Your task to perform on an android device: turn on sleep mode Image 0: 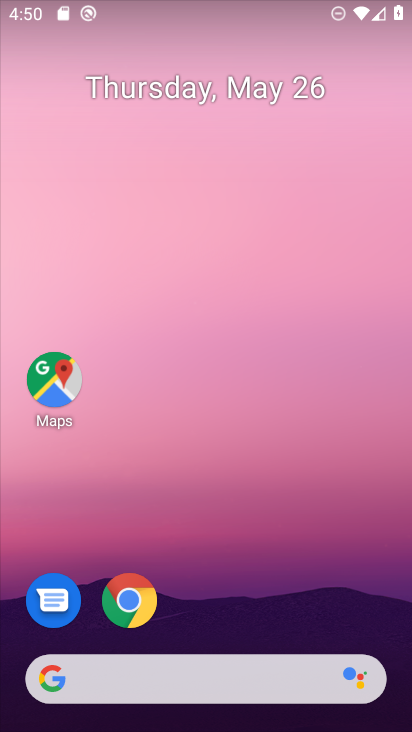
Step 0: drag from (200, 619) to (246, 9)
Your task to perform on an android device: turn on sleep mode Image 1: 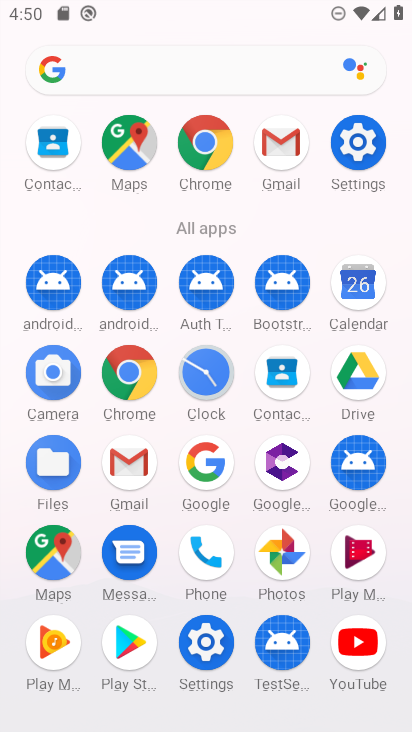
Step 1: click (359, 155)
Your task to perform on an android device: turn on sleep mode Image 2: 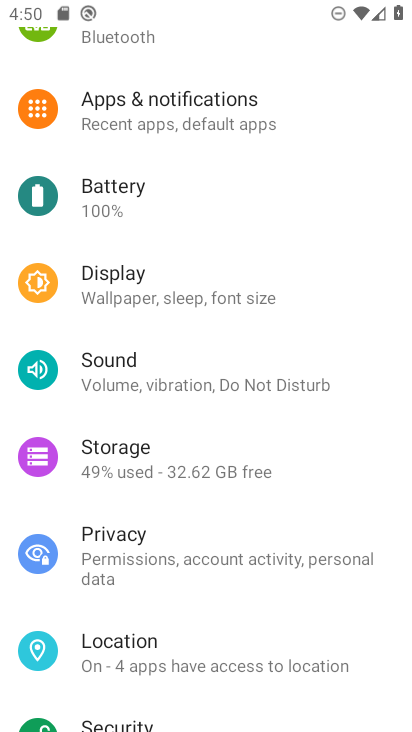
Step 2: drag from (270, 195) to (260, 615)
Your task to perform on an android device: turn on sleep mode Image 3: 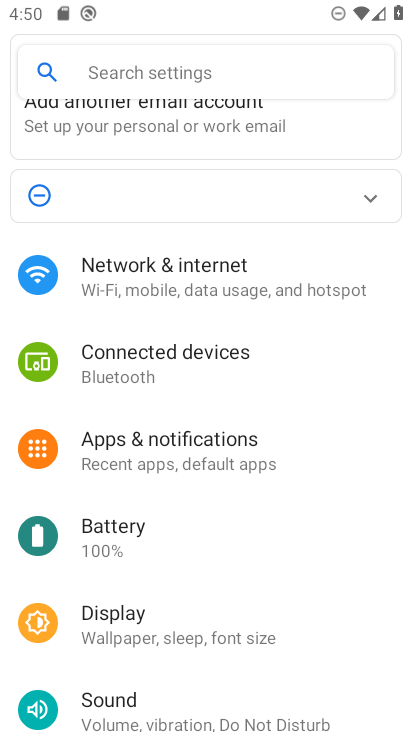
Step 3: click (228, 61)
Your task to perform on an android device: turn on sleep mode Image 4: 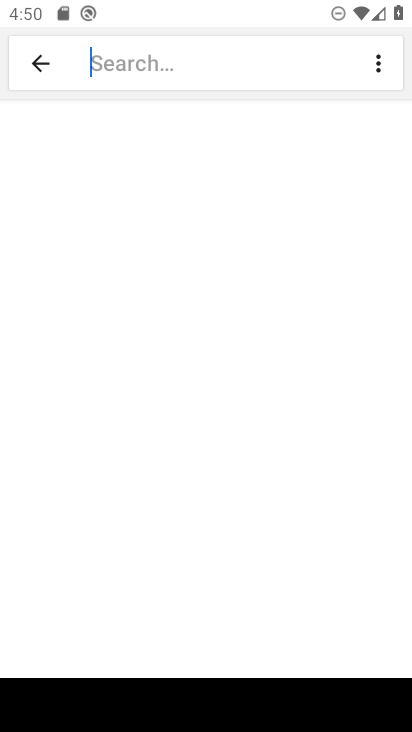
Step 4: type "sleep mode"
Your task to perform on an android device: turn on sleep mode Image 5: 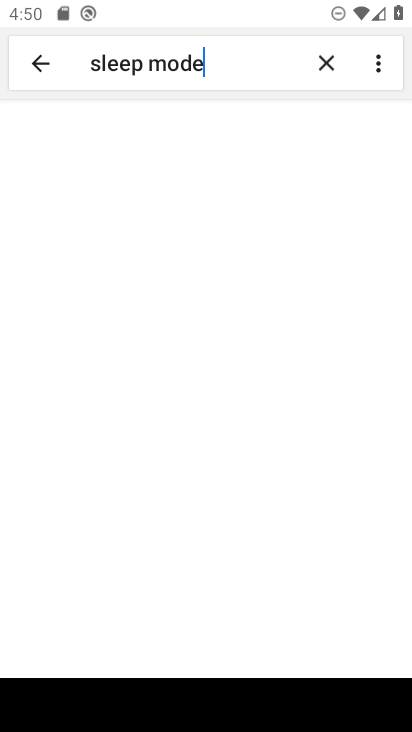
Step 5: click (215, 150)
Your task to perform on an android device: turn on sleep mode Image 6: 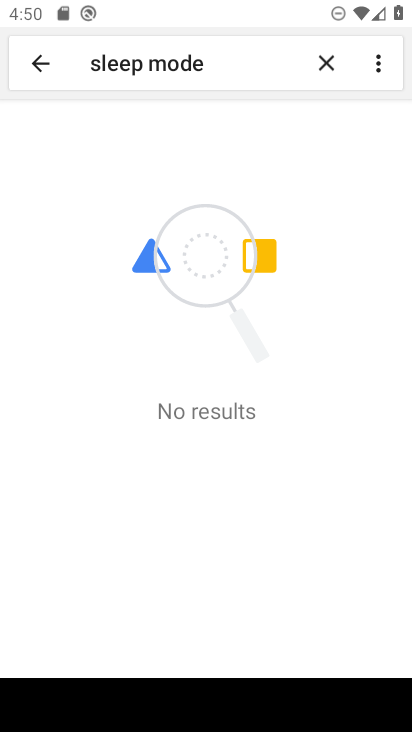
Step 6: task complete